Your task to perform on an android device: uninstall "NewsBreak: Local News & Alerts" Image 0: 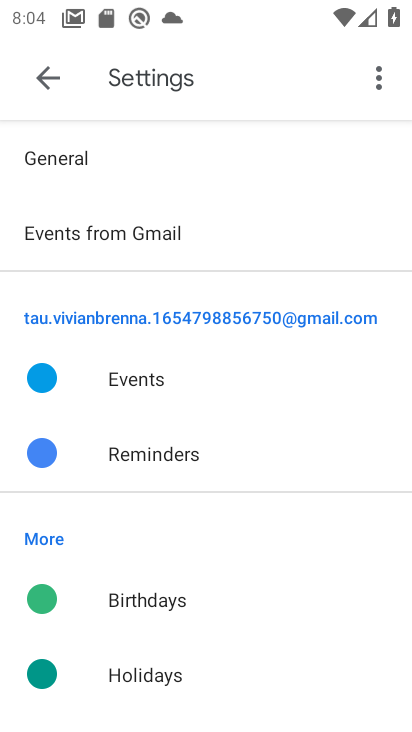
Step 0: press home button
Your task to perform on an android device: uninstall "NewsBreak: Local News & Alerts" Image 1: 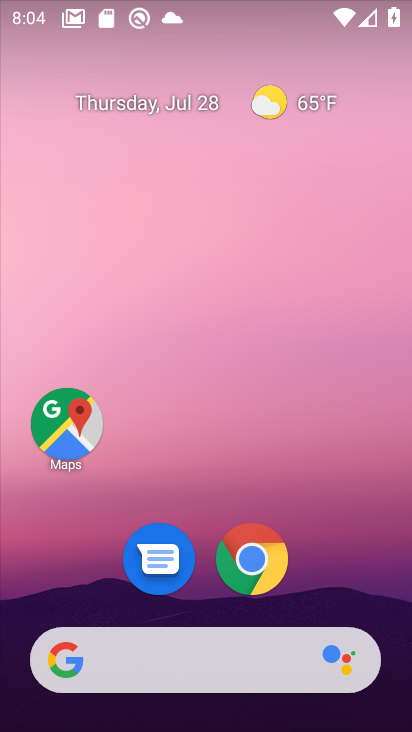
Step 1: drag from (194, 601) to (231, 7)
Your task to perform on an android device: uninstall "NewsBreak: Local News & Alerts" Image 2: 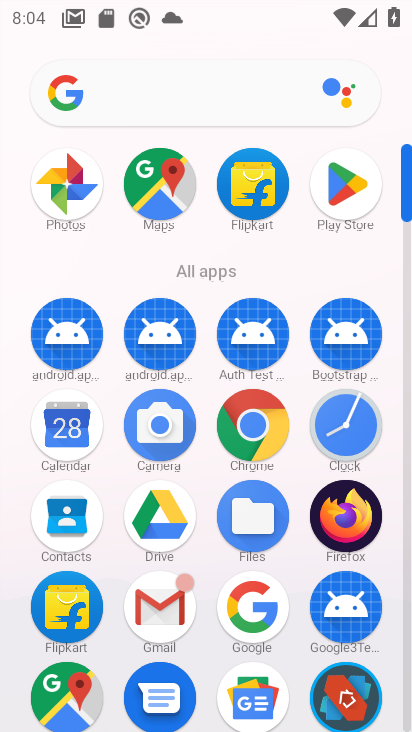
Step 2: click (347, 177)
Your task to perform on an android device: uninstall "NewsBreak: Local News & Alerts" Image 3: 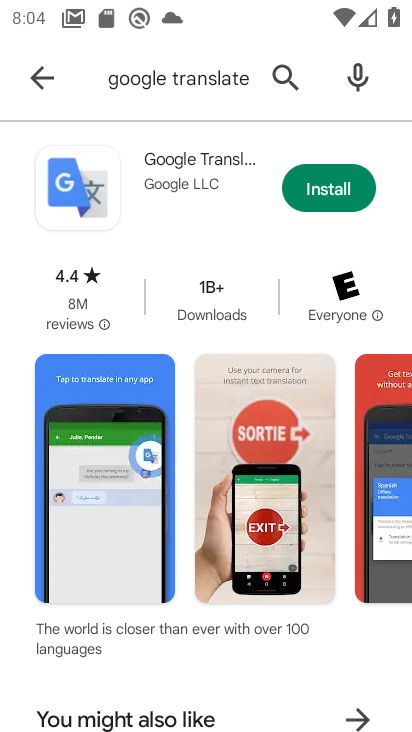
Step 3: click (159, 71)
Your task to perform on an android device: uninstall "NewsBreak: Local News & Alerts" Image 4: 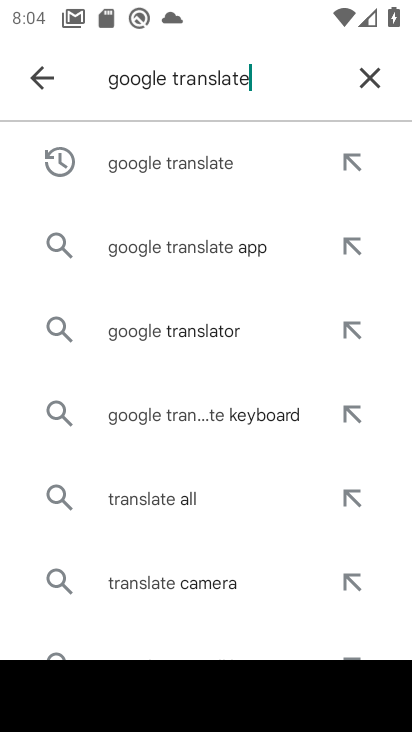
Step 4: click (370, 82)
Your task to perform on an android device: uninstall "NewsBreak: Local News & Alerts" Image 5: 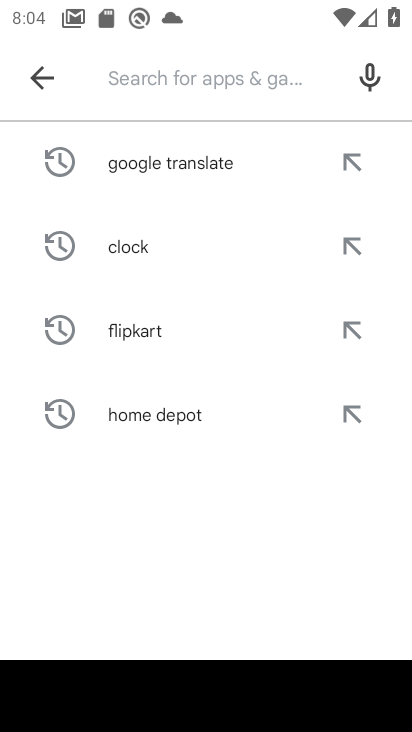
Step 5: type "NewsBreal"
Your task to perform on an android device: uninstall "NewsBreak: Local News & Alerts" Image 6: 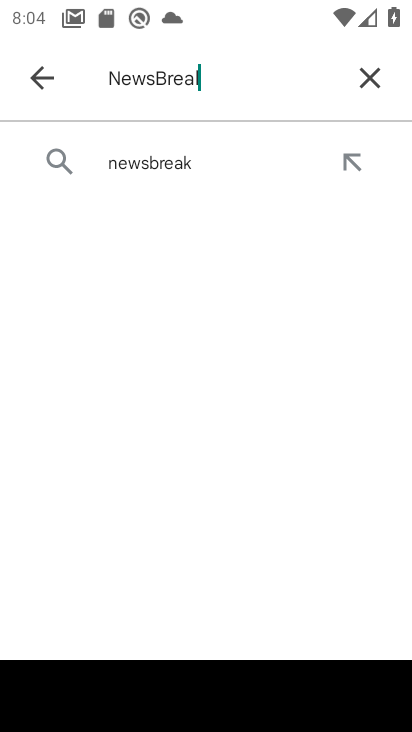
Step 6: click (150, 158)
Your task to perform on an android device: uninstall "NewsBreak: Local News & Alerts" Image 7: 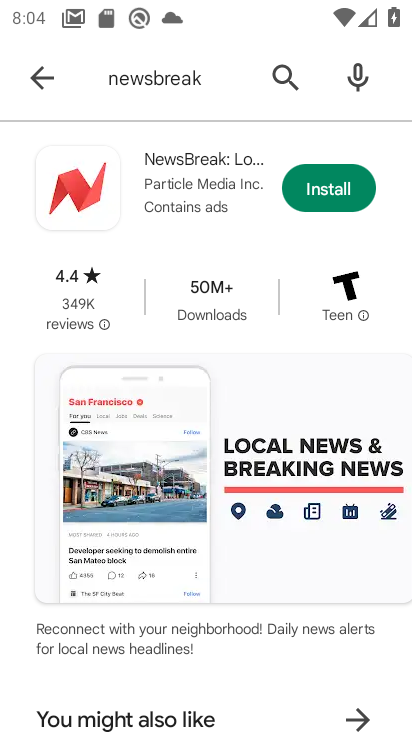
Step 7: task complete